Your task to perform on an android device: Add "razer huntsman" to the cart on amazon Image 0: 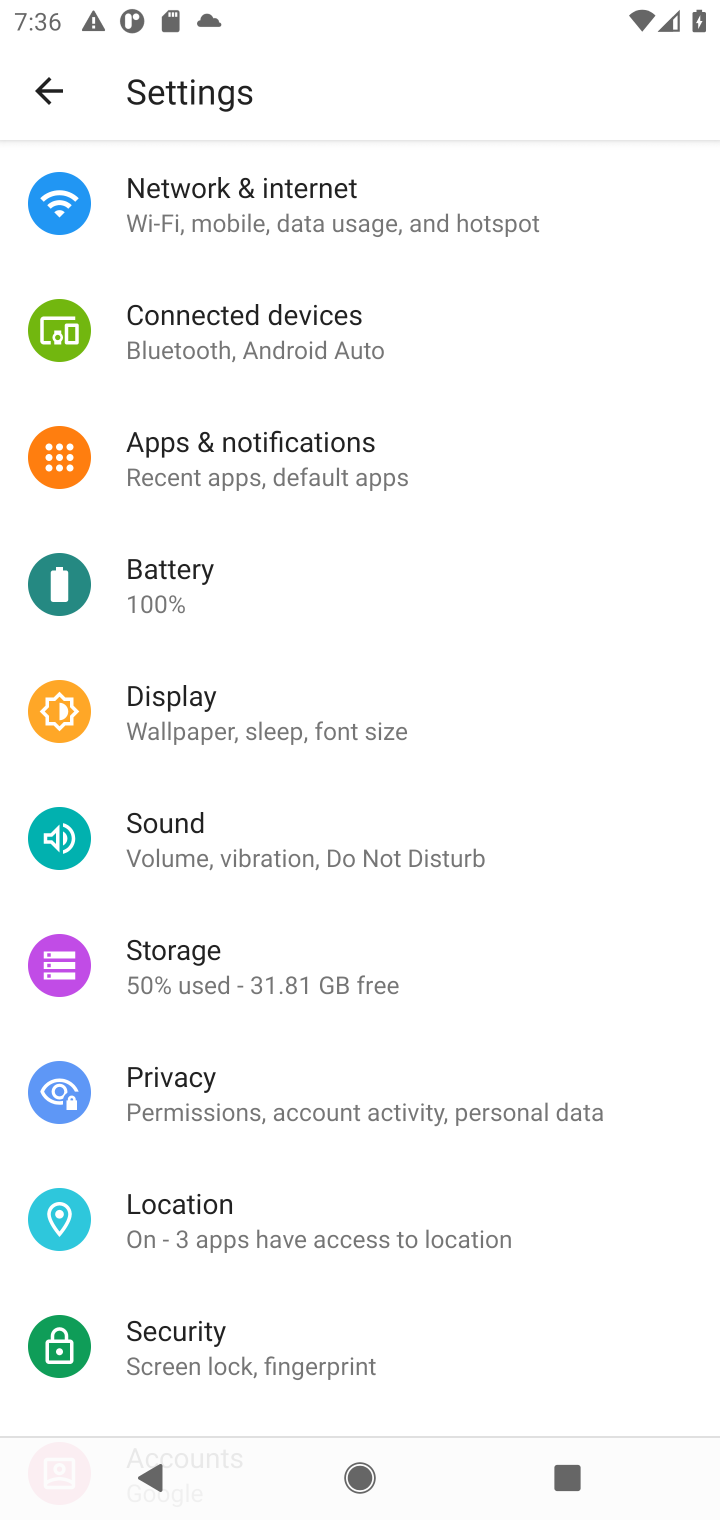
Step 0: press home button
Your task to perform on an android device: Add "razer huntsman" to the cart on amazon Image 1: 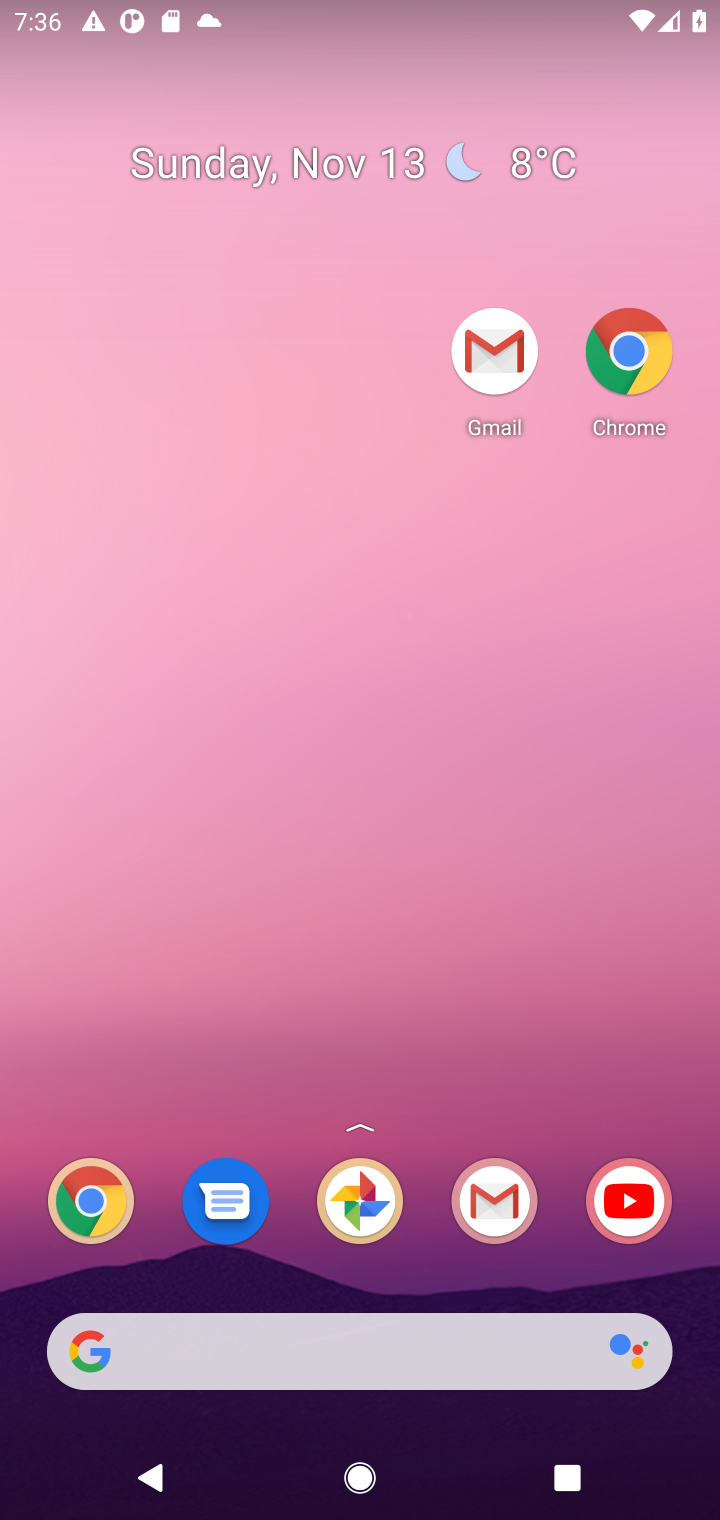
Step 1: drag from (430, 1233) to (431, 55)
Your task to perform on an android device: Add "razer huntsman" to the cart on amazon Image 2: 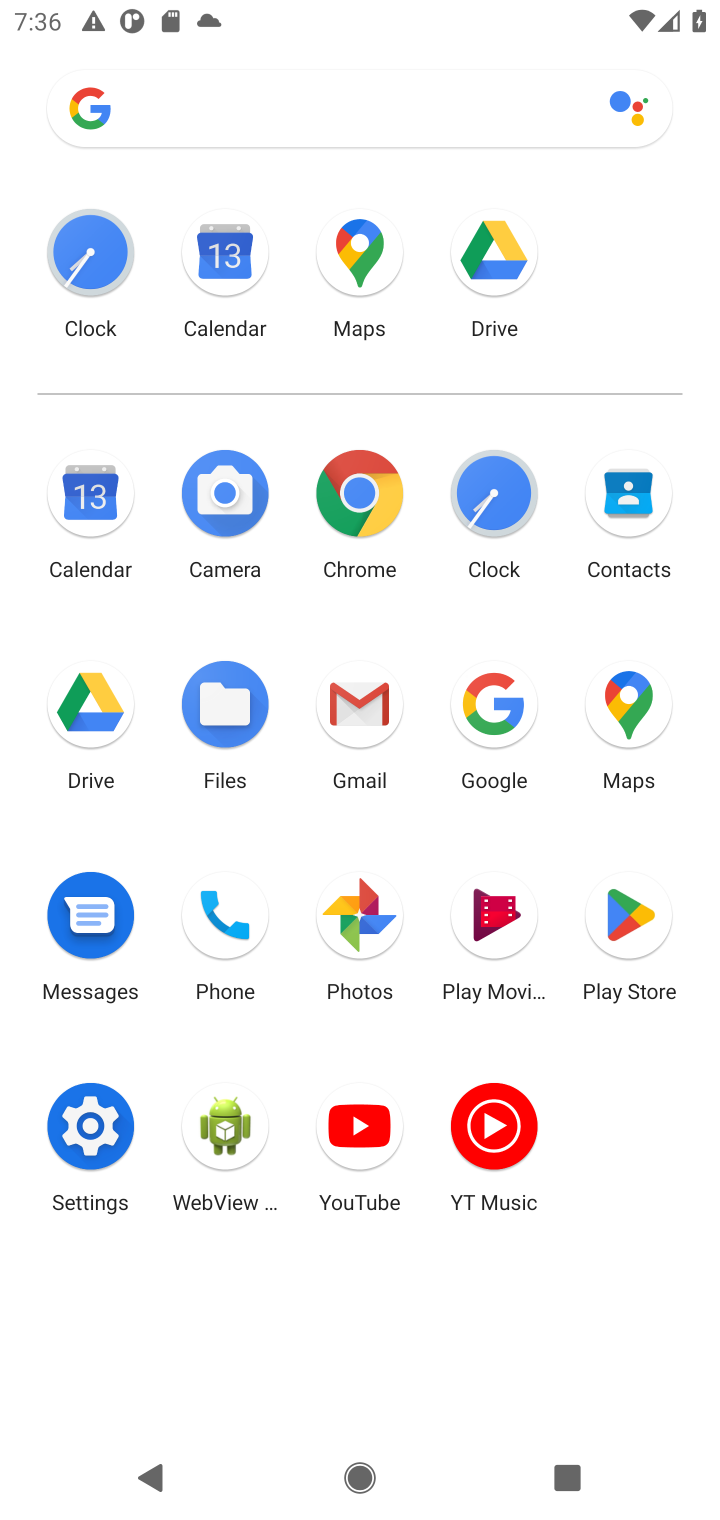
Step 2: click (349, 496)
Your task to perform on an android device: Add "razer huntsman" to the cart on amazon Image 3: 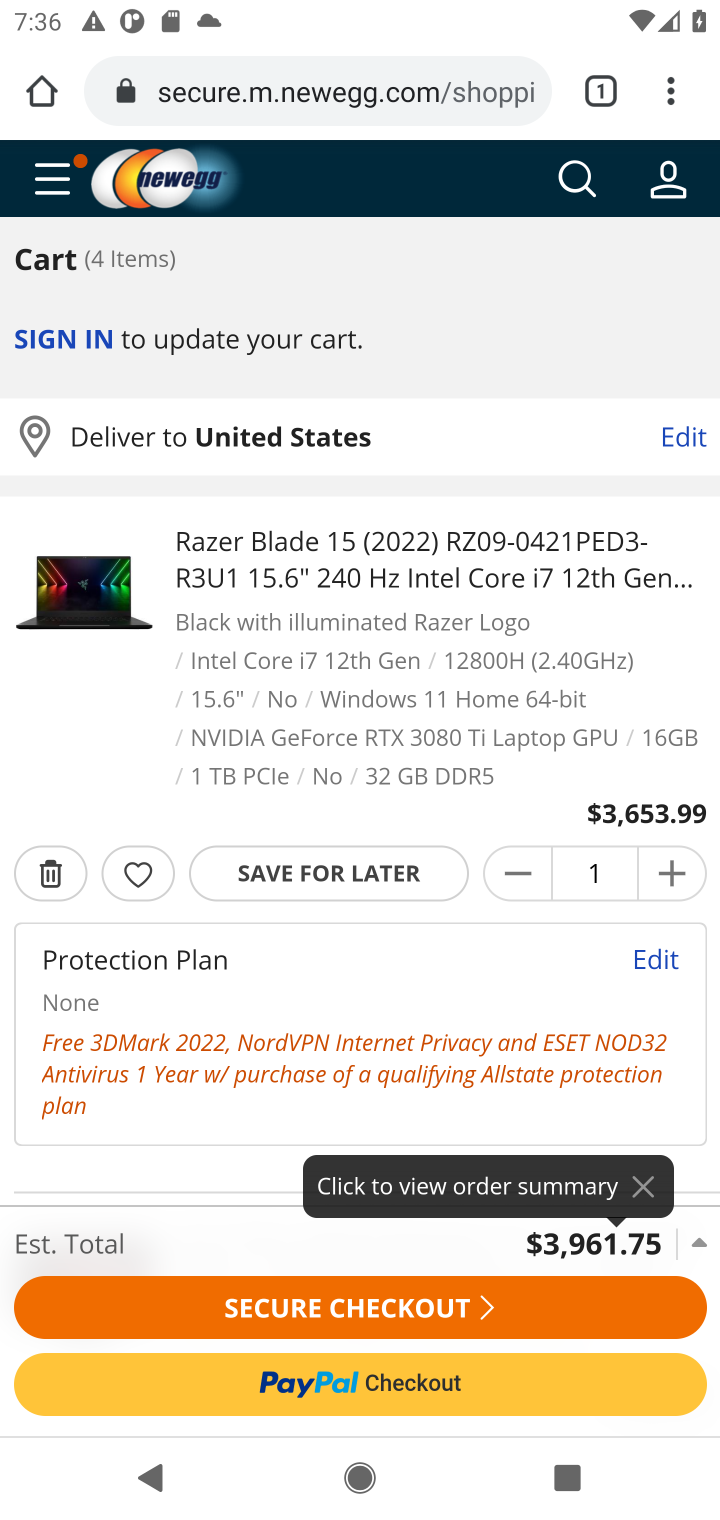
Step 3: click (508, 89)
Your task to perform on an android device: Add "razer huntsman" to the cart on amazon Image 4: 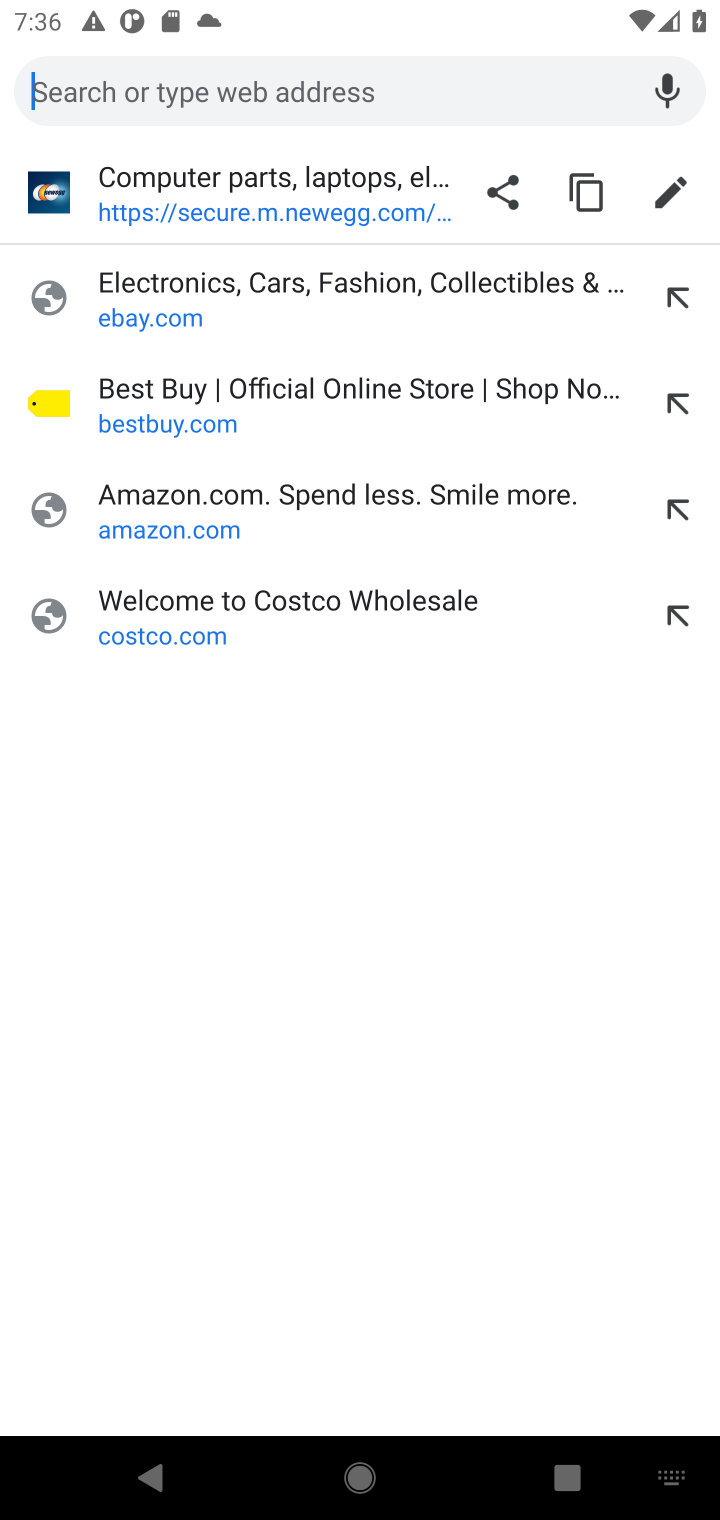
Step 4: type "amazon.com"
Your task to perform on an android device: Add "razer huntsman" to the cart on amazon Image 5: 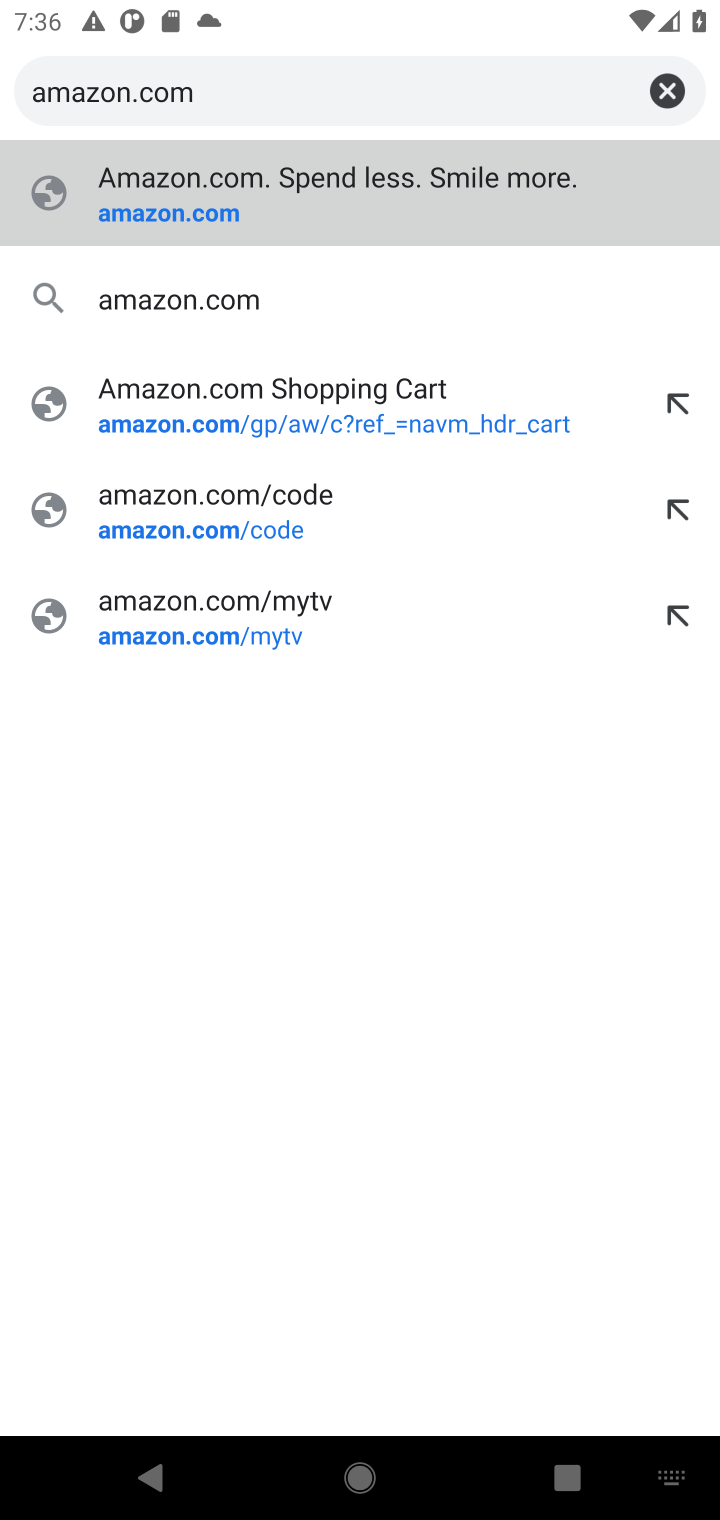
Step 5: press enter
Your task to perform on an android device: Add "razer huntsman" to the cart on amazon Image 6: 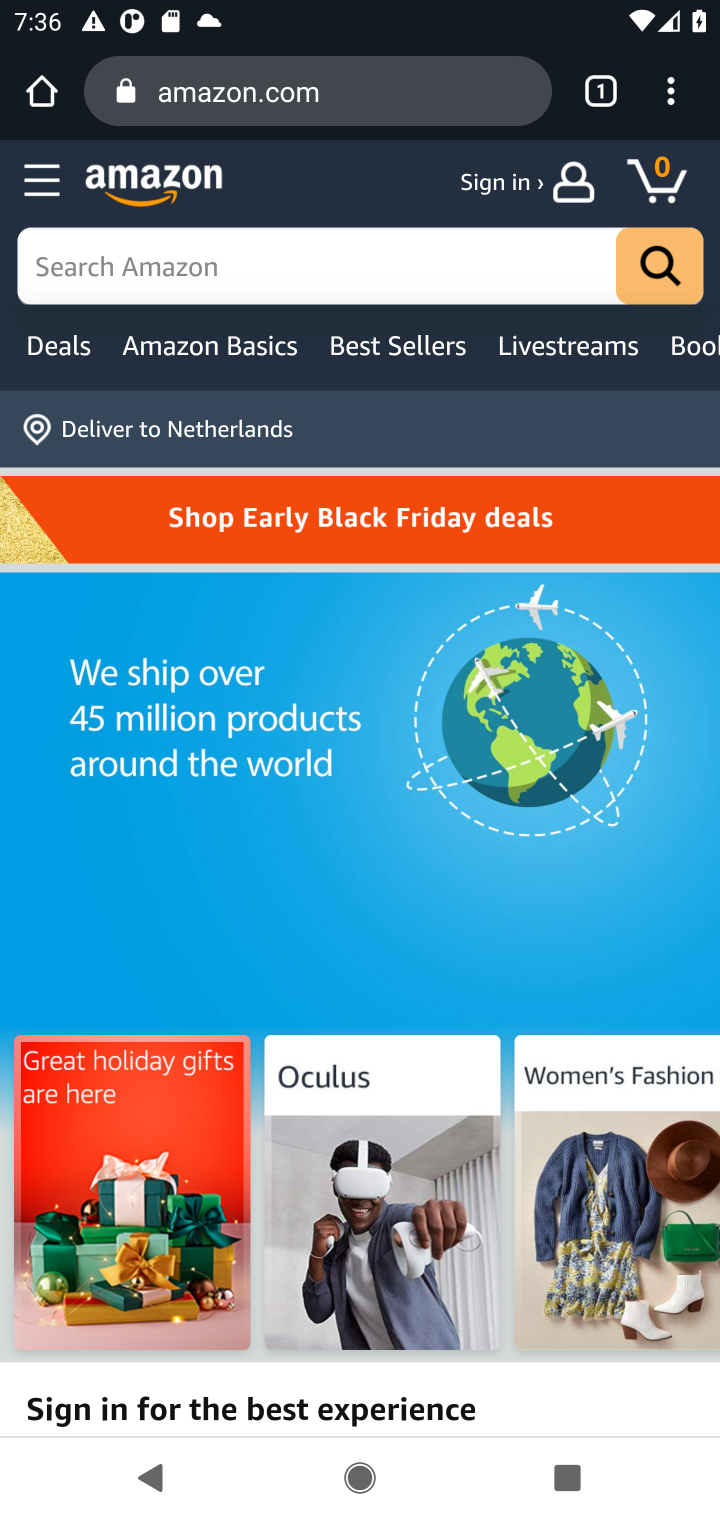
Step 6: click (175, 270)
Your task to perform on an android device: Add "razer huntsman" to the cart on amazon Image 7: 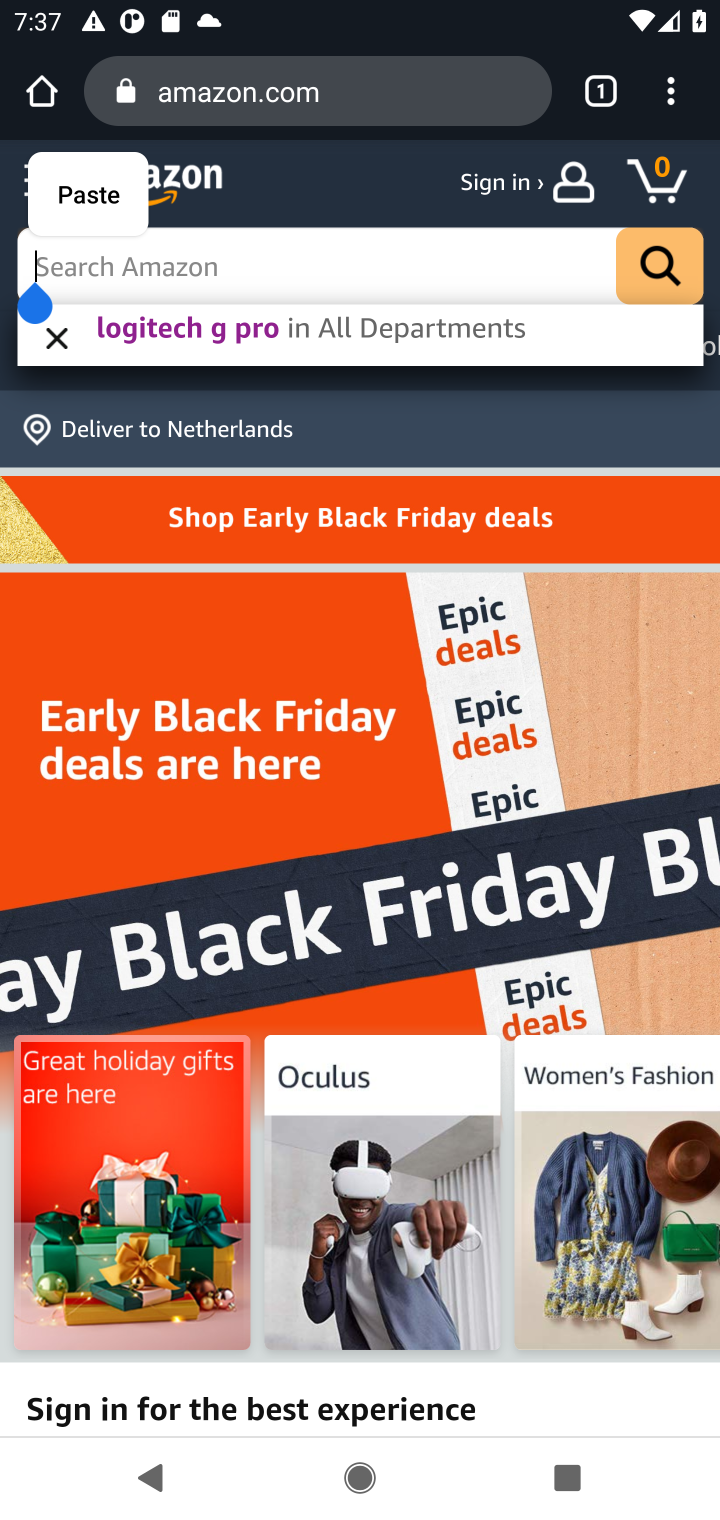
Step 7: type "razer huntsman"
Your task to perform on an android device: Add "razer huntsman" to the cart on amazon Image 8: 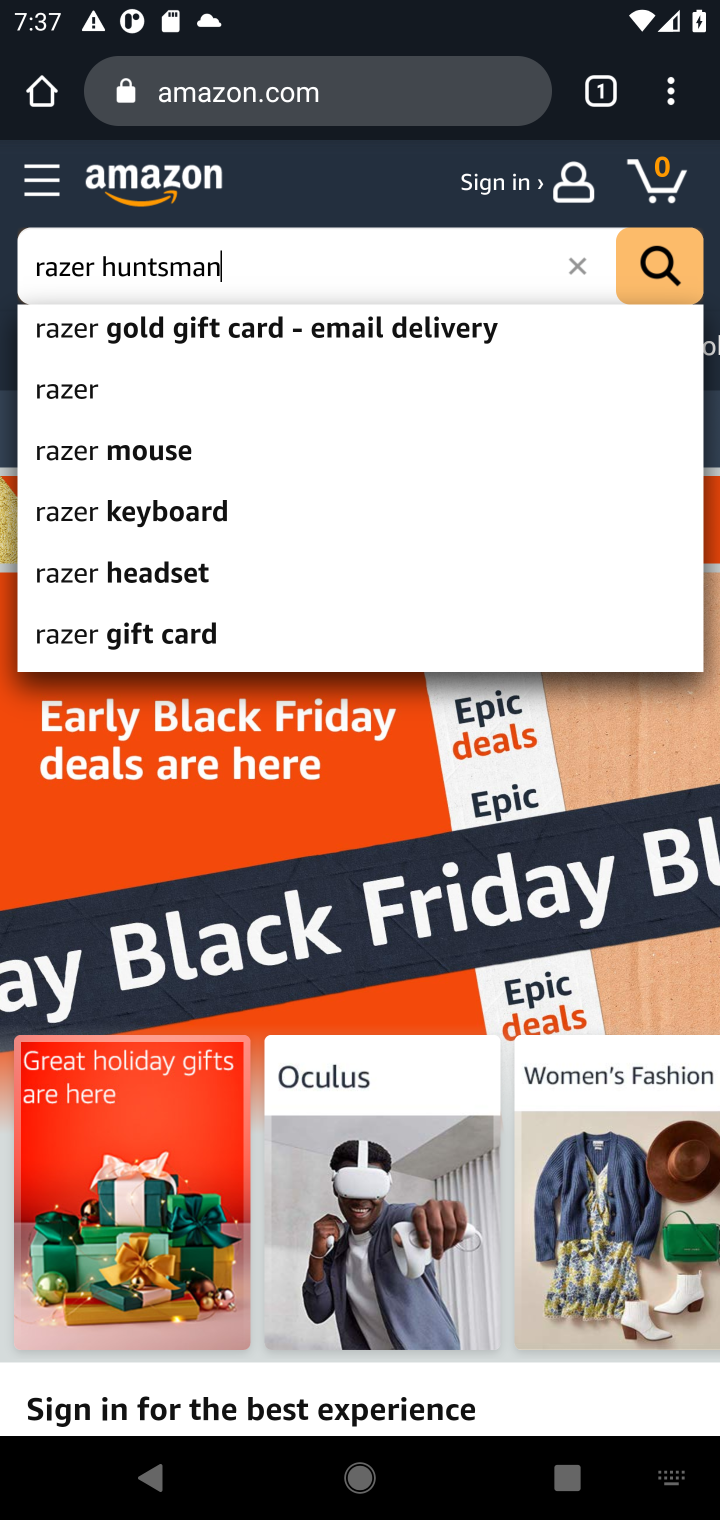
Step 8: press enter
Your task to perform on an android device: Add "razer huntsman" to the cart on amazon Image 9: 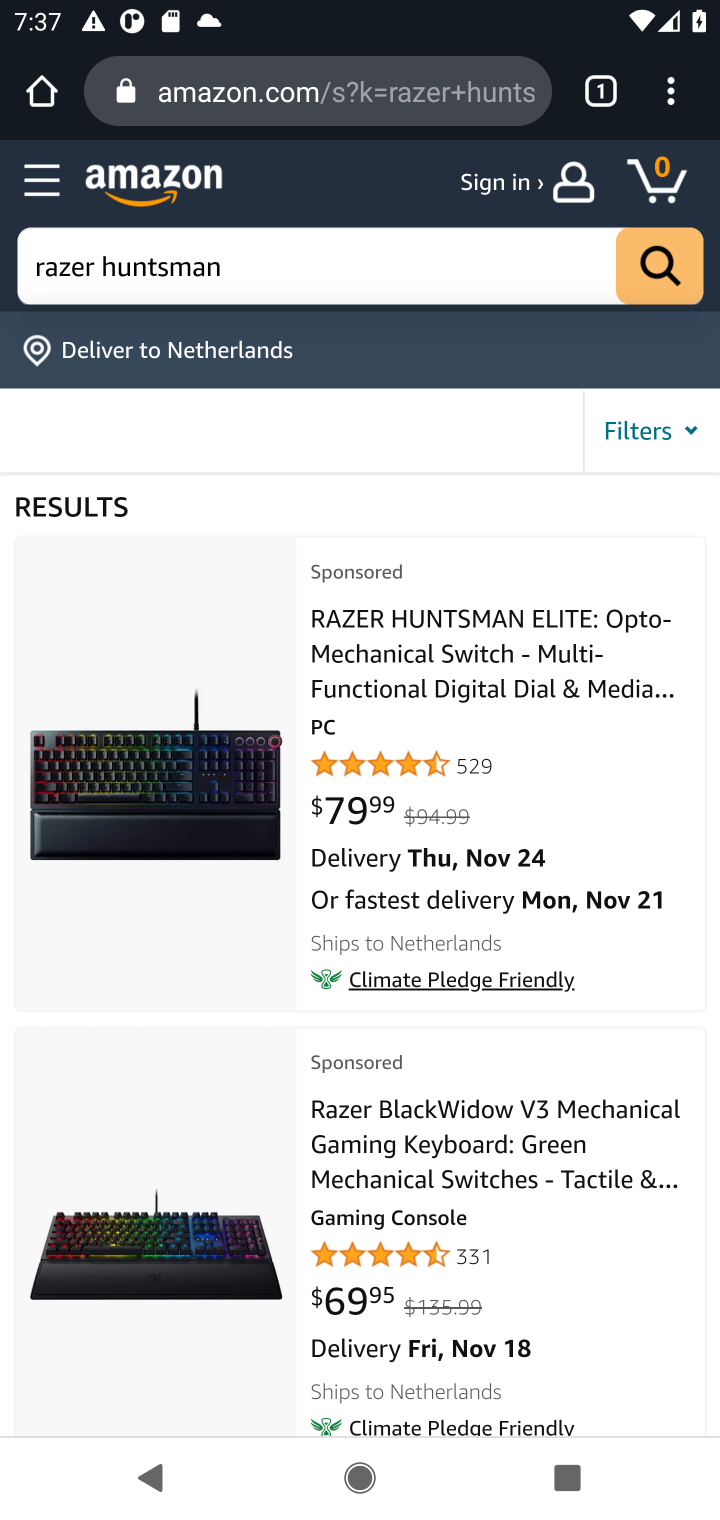
Step 9: drag from (397, 1287) to (430, 862)
Your task to perform on an android device: Add "razer huntsman" to the cart on amazon Image 10: 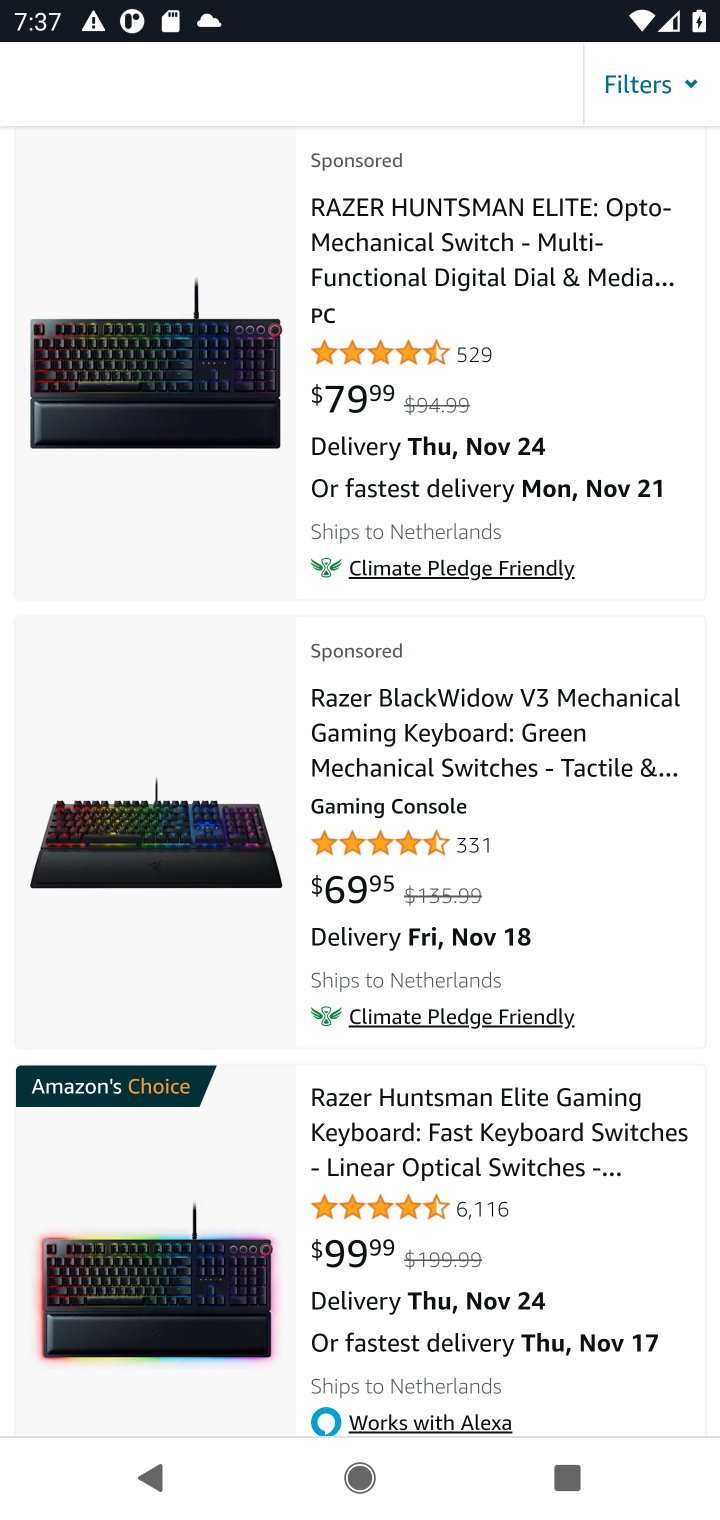
Step 10: click (410, 1120)
Your task to perform on an android device: Add "razer huntsman" to the cart on amazon Image 11: 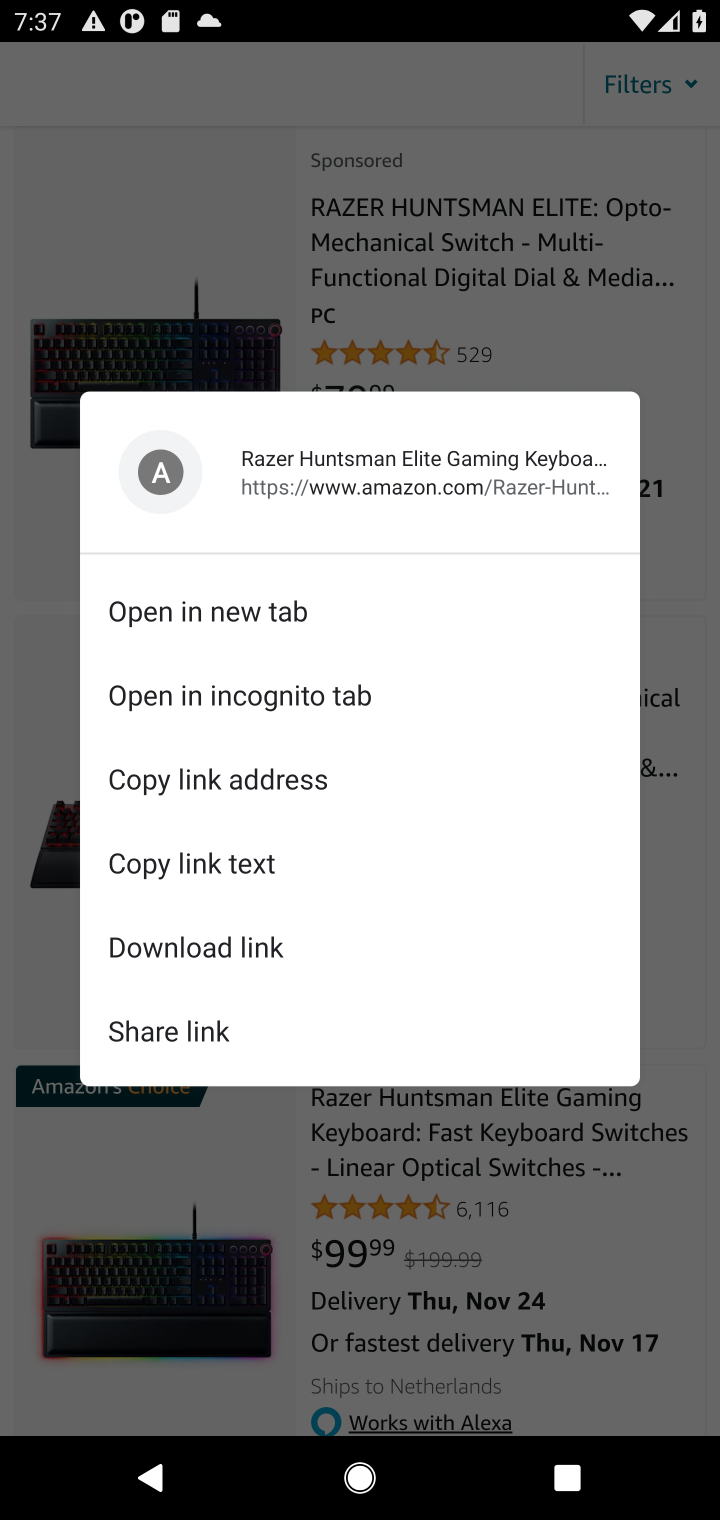
Step 11: click (404, 1117)
Your task to perform on an android device: Add "razer huntsman" to the cart on amazon Image 12: 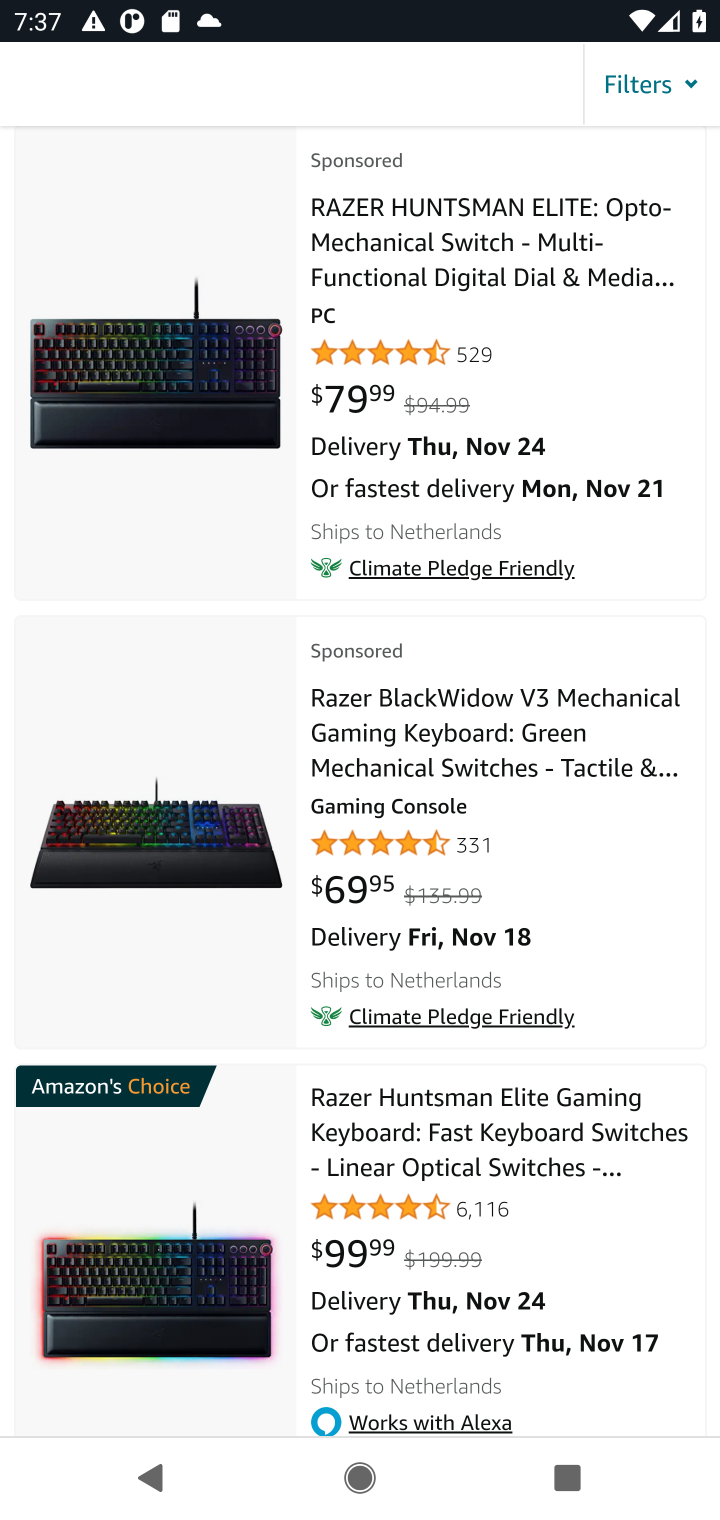
Step 12: click (450, 1162)
Your task to perform on an android device: Add "razer huntsman" to the cart on amazon Image 13: 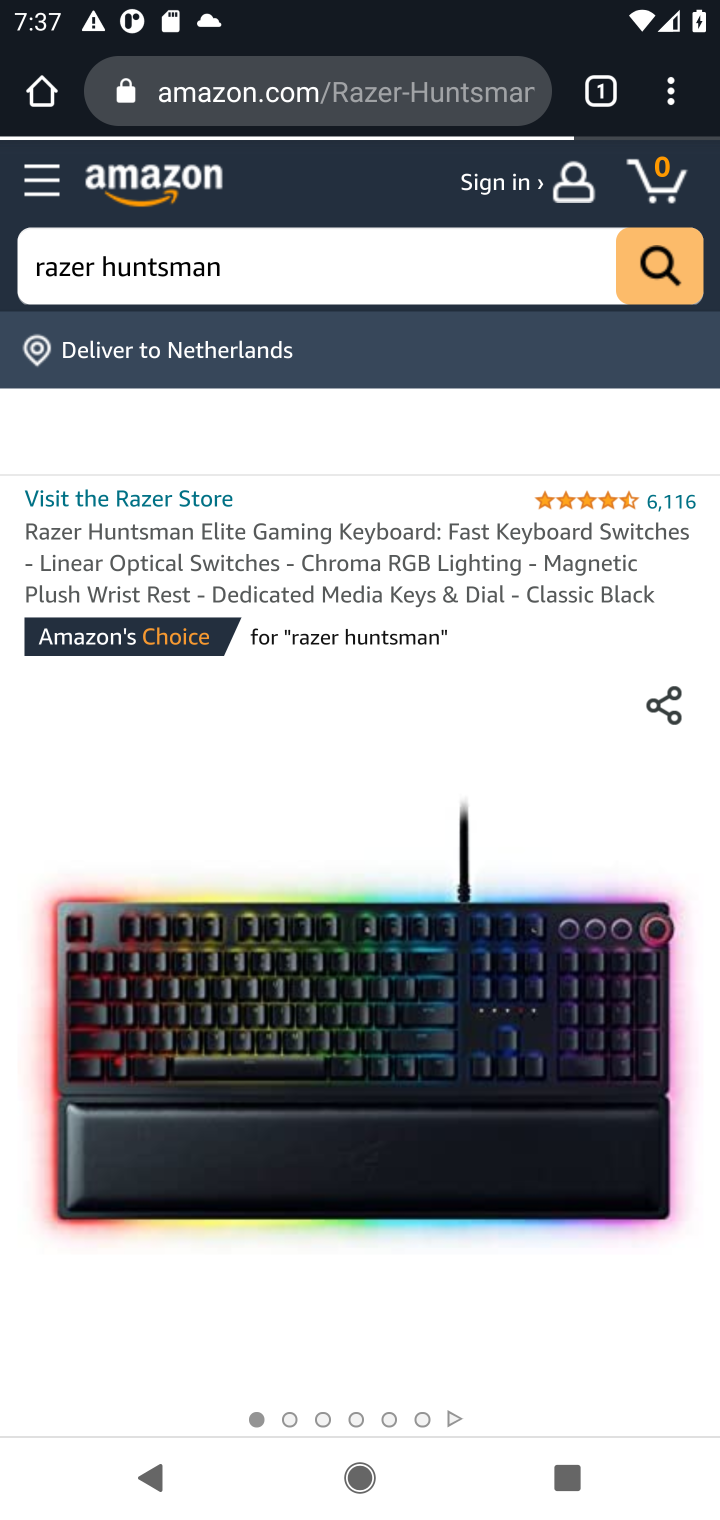
Step 13: drag from (393, 1108) to (451, 395)
Your task to perform on an android device: Add "razer huntsman" to the cart on amazon Image 14: 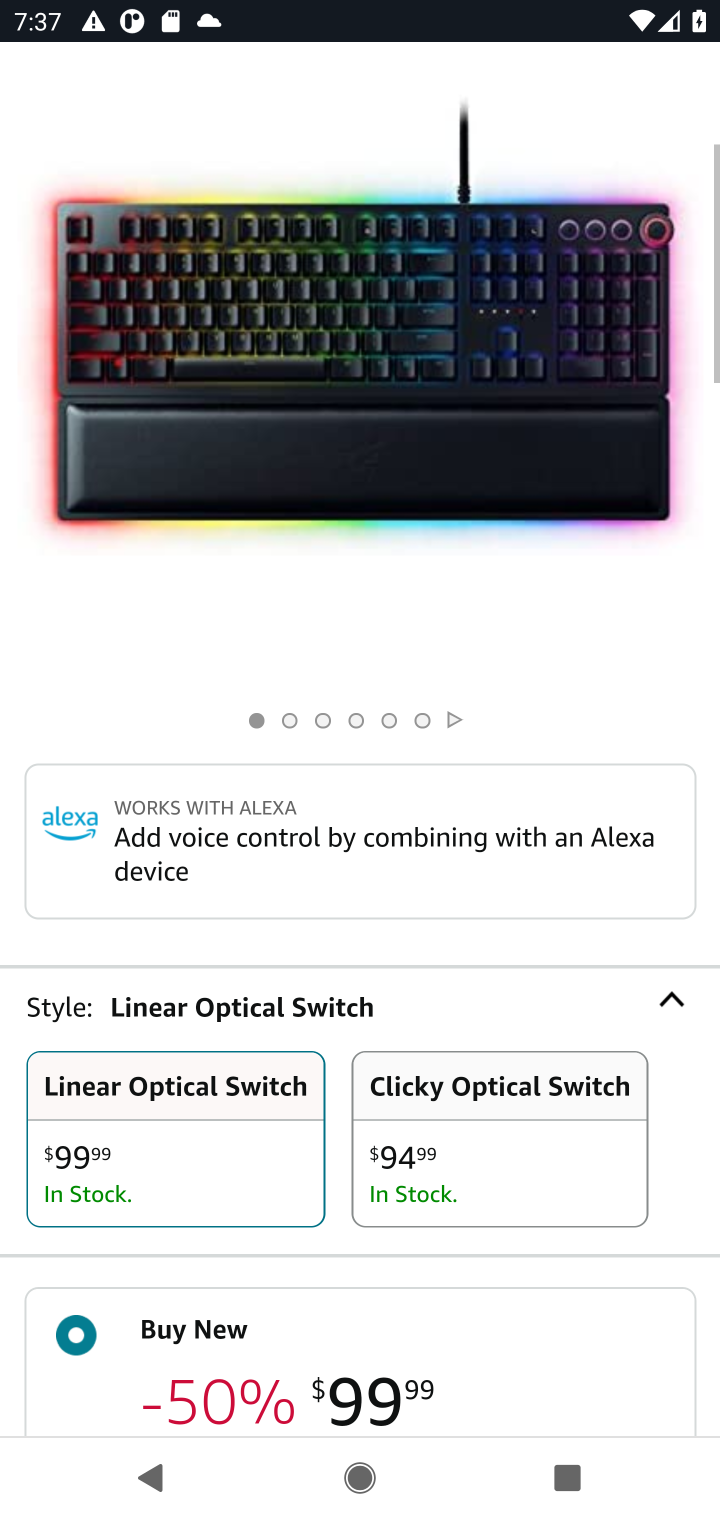
Step 14: drag from (349, 903) to (435, 350)
Your task to perform on an android device: Add "razer huntsman" to the cart on amazon Image 15: 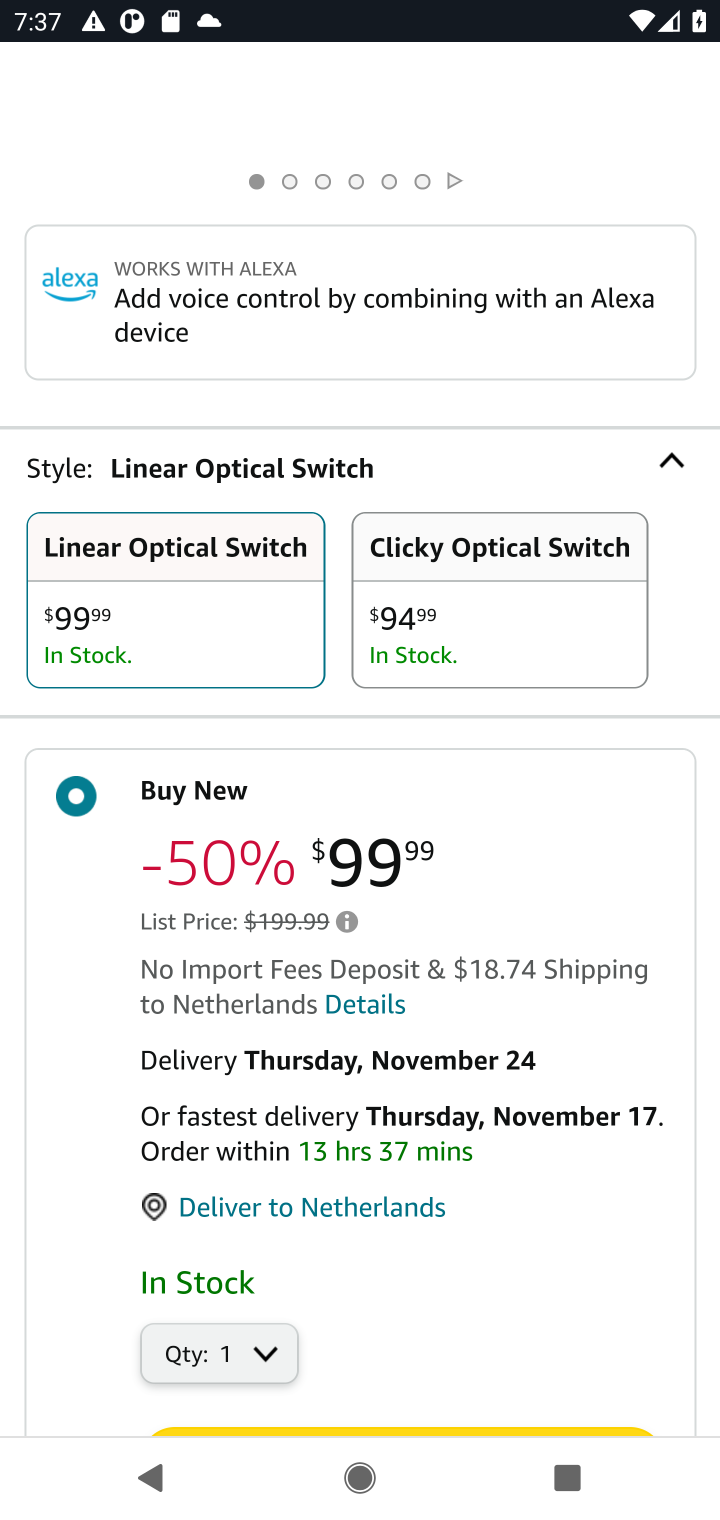
Step 15: drag from (309, 1303) to (582, 426)
Your task to perform on an android device: Add "razer huntsman" to the cart on amazon Image 16: 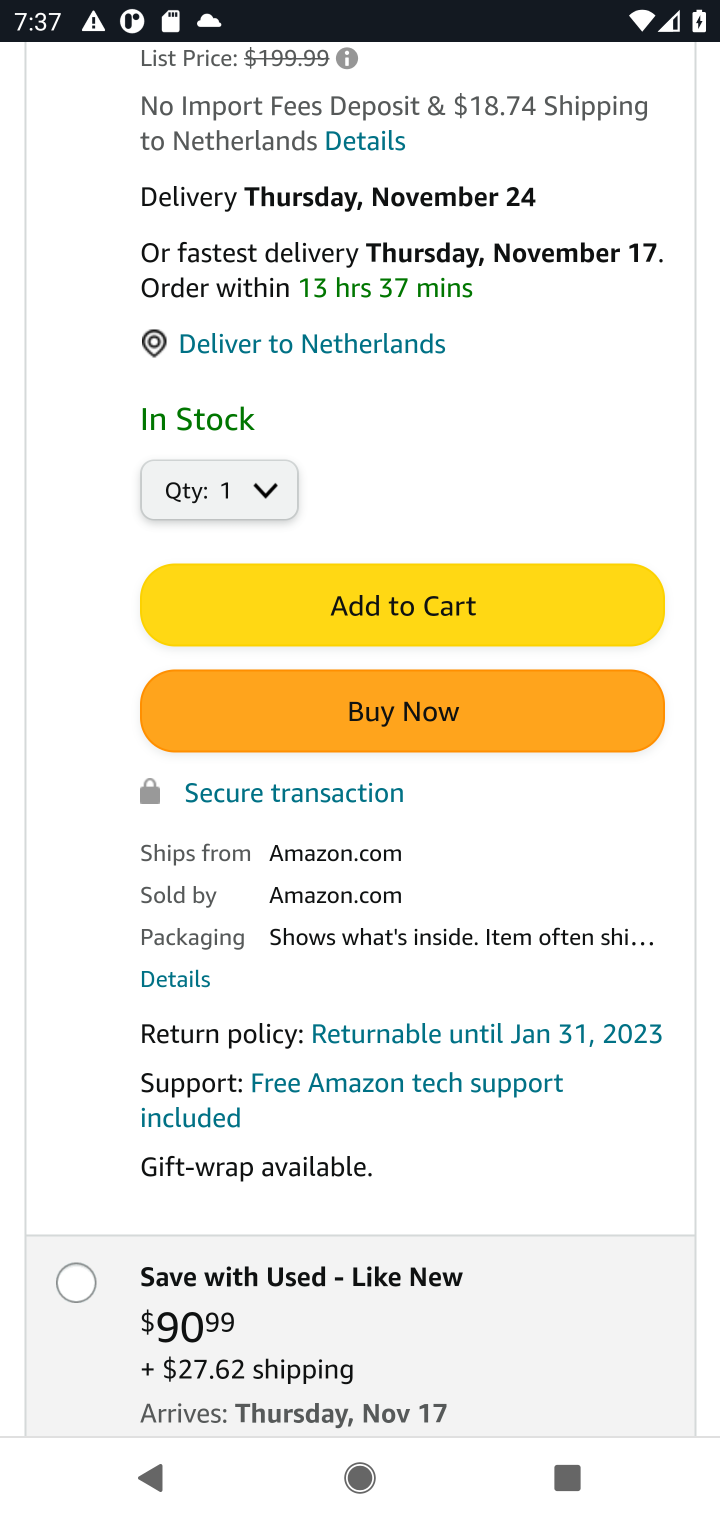
Step 16: click (443, 589)
Your task to perform on an android device: Add "razer huntsman" to the cart on amazon Image 17: 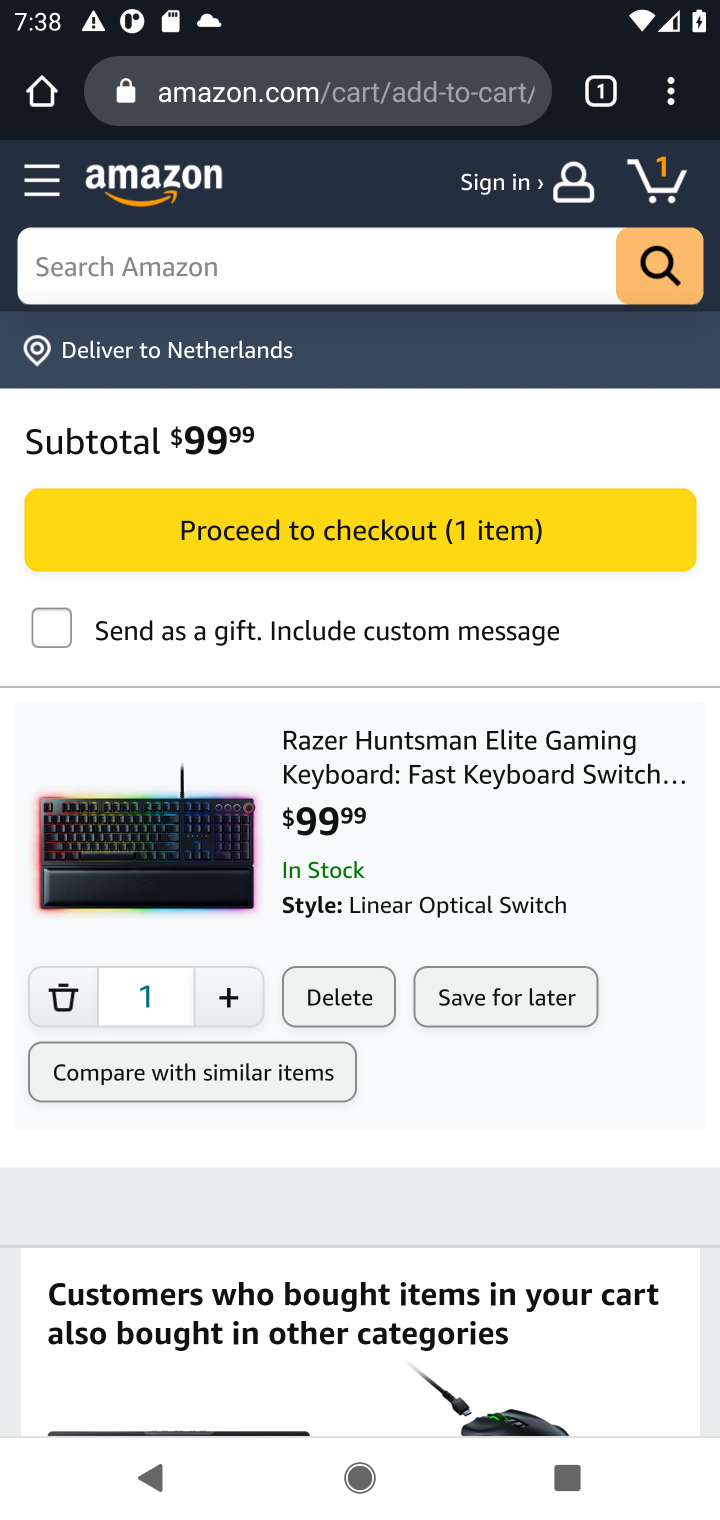
Step 17: task complete